Your task to perform on an android device: Search for sushi restaurants on Maps Image 0: 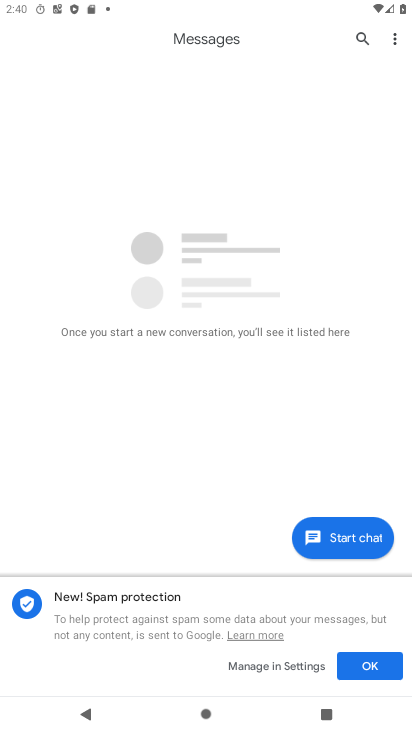
Step 0: press home button
Your task to perform on an android device: Search for sushi restaurants on Maps Image 1: 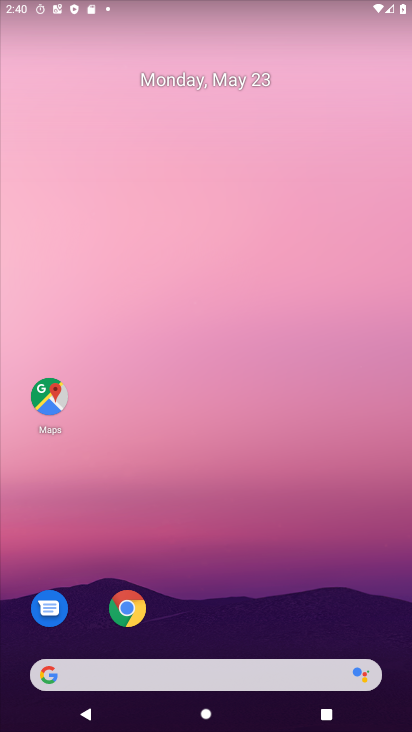
Step 1: click (54, 385)
Your task to perform on an android device: Search for sushi restaurants on Maps Image 2: 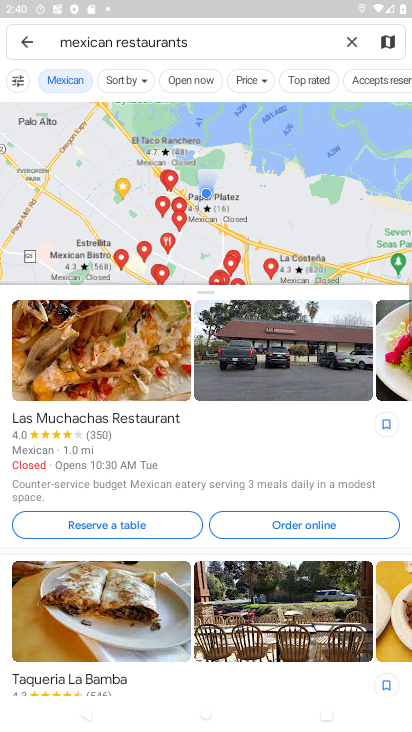
Step 2: click (88, 36)
Your task to perform on an android device: Search for sushi restaurants on Maps Image 3: 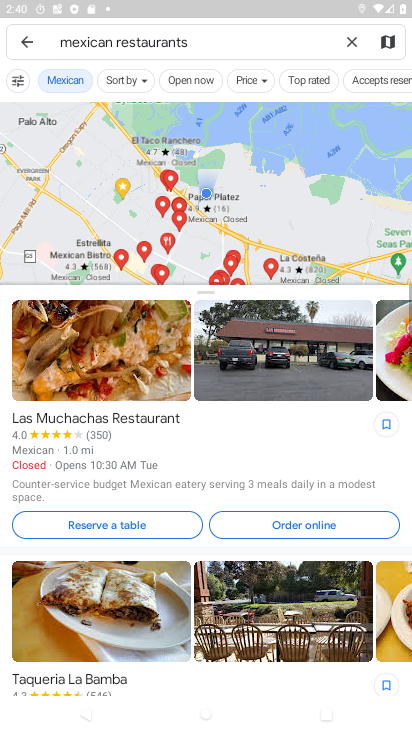
Step 3: click (88, 36)
Your task to perform on an android device: Search for sushi restaurants on Maps Image 4: 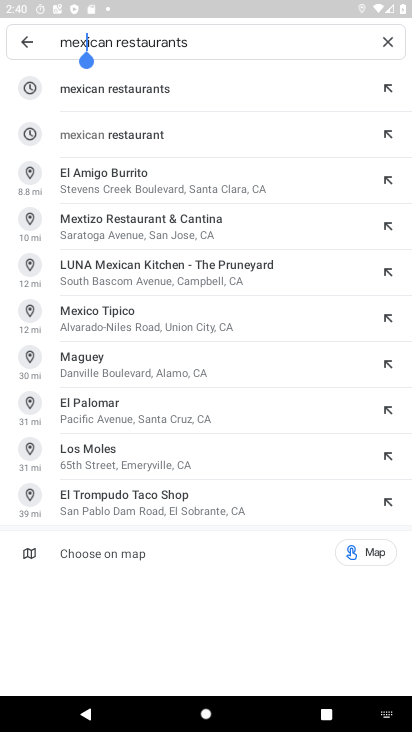
Step 4: click (85, 44)
Your task to perform on an android device: Search for sushi restaurants on Maps Image 5: 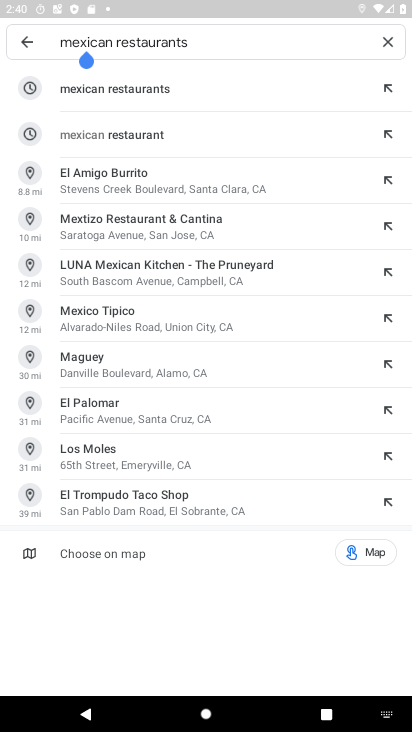
Step 5: click (85, 44)
Your task to perform on an android device: Search for sushi restaurants on Maps Image 6: 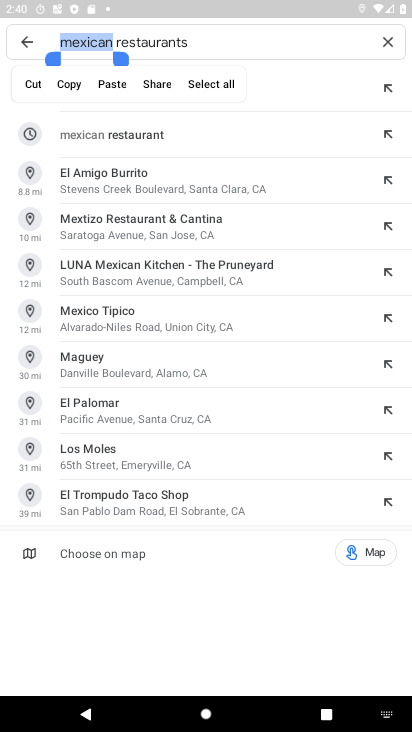
Step 6: type "Sushi"
Your task to perform on an android device: Search for sushi restaurants on Maps Image 7: 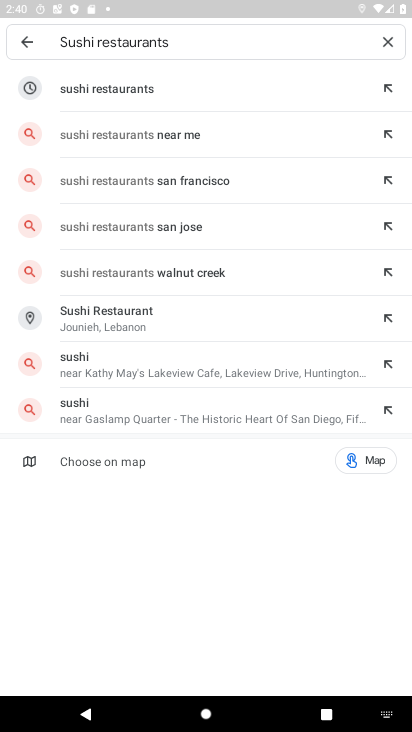
Step 7: click (142, 96)
Your task to perform on an android device: Search for sushi restaurants on Maps Image 8: 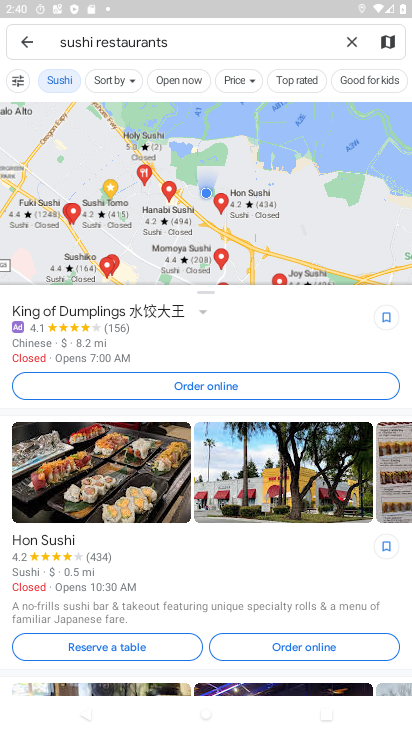
Step 8: task complete